Your task to perform on an android device: turn on priority inbox in the gmail app Image 0: 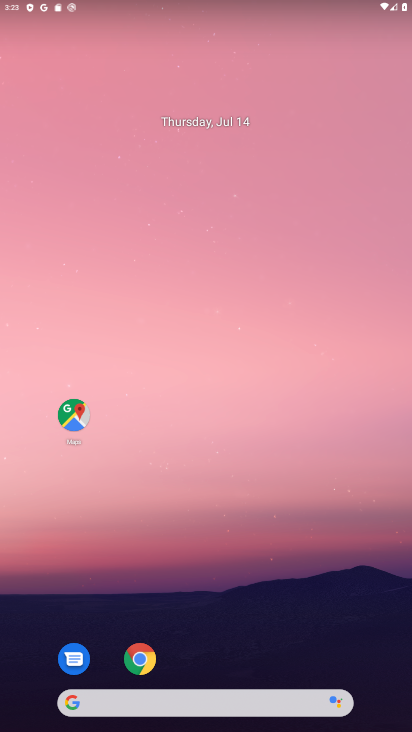
Step 0: drag from (335, 614) to (339, 124)
Your task to perform on an android device: turn on priority inbox in the gmail app Image 1: 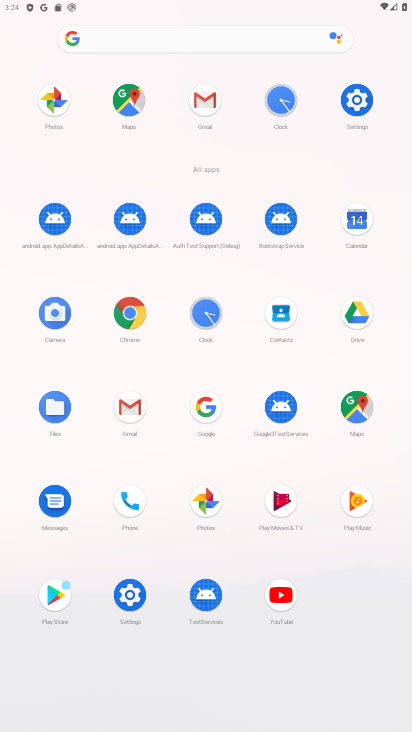
Step 1: click (139, 404)
Your task to perform on an android device: turn on priority inbox in the gmail app Image 2: 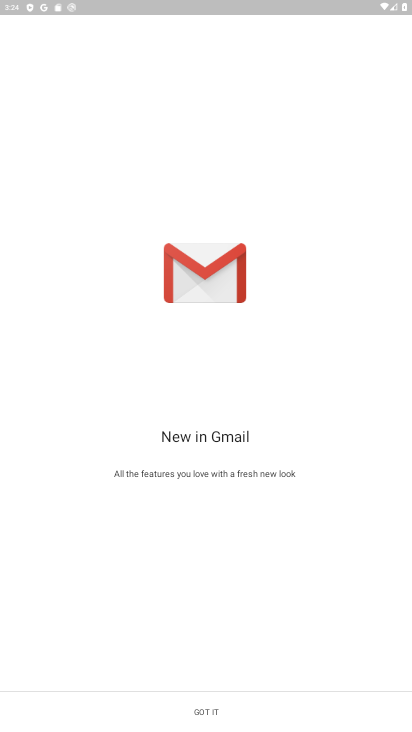
Step 2: click (207, 703)
Your task to perform on an android device: turn on priority inbox in the gmail app Image 3: 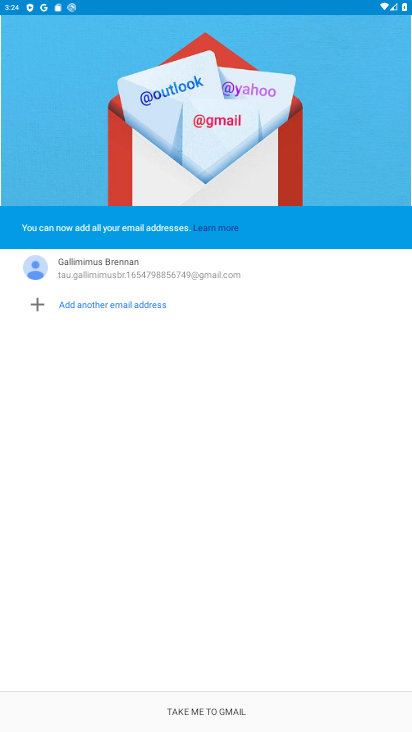
Step 3: click (211, 712)
Your task to perform on an android device: turn on priority inbox in the gmail app Image 4: 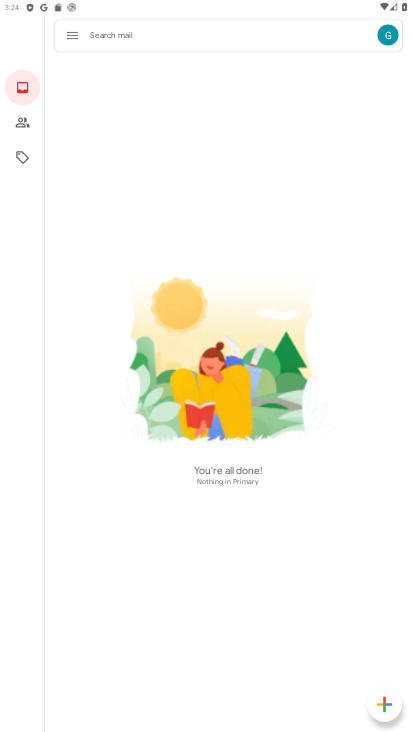
Step 4: click (76, 37)
Your task to perform on an android device: turn on priority inbox in the gmail app Image 5: 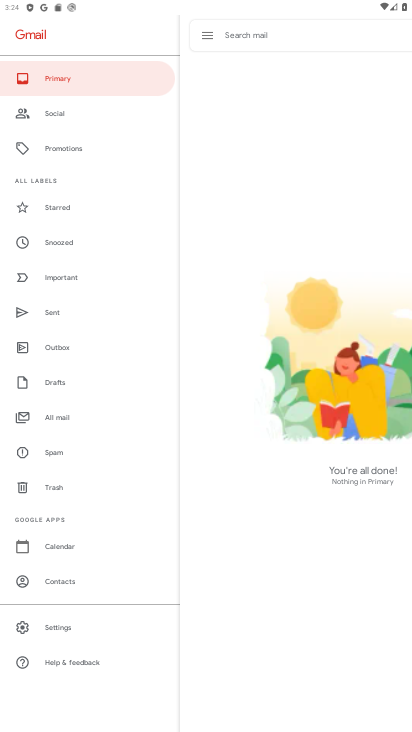
Step 5: click (102, 630)
Your task to perform on an android device: turn on priority inbox in the gmail app Image 6: 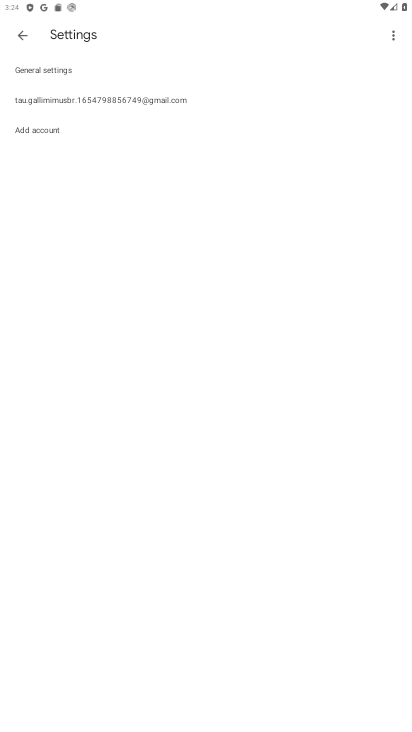
Step 6: click (146, 101)
Your task to perform on an android device: turn on priority inbox in the gmail app Image 7: 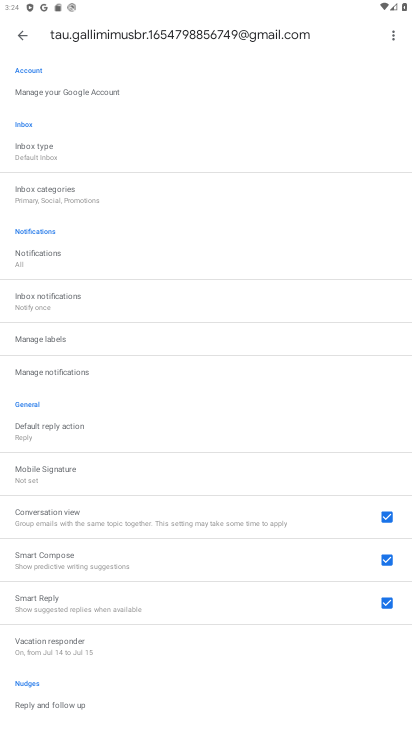
Step 7: click (89, 169)
Your task to perform on an android device: turn on priority inbox in the gmail app Image 8: 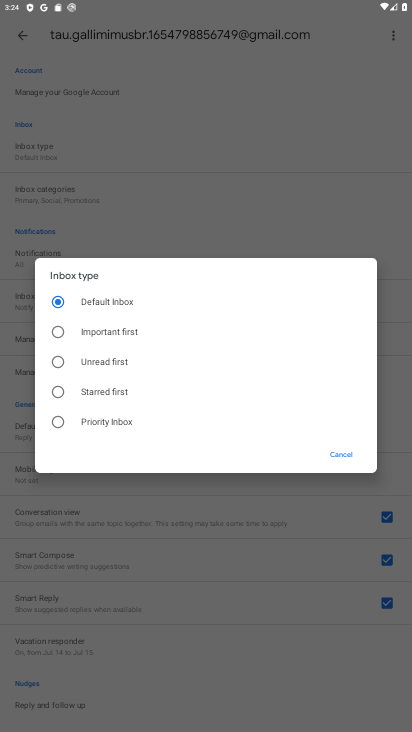
Step 8: click (123, 423)
Your task to perform on an android device: turn on priority inbox in the gmail app Image 9: 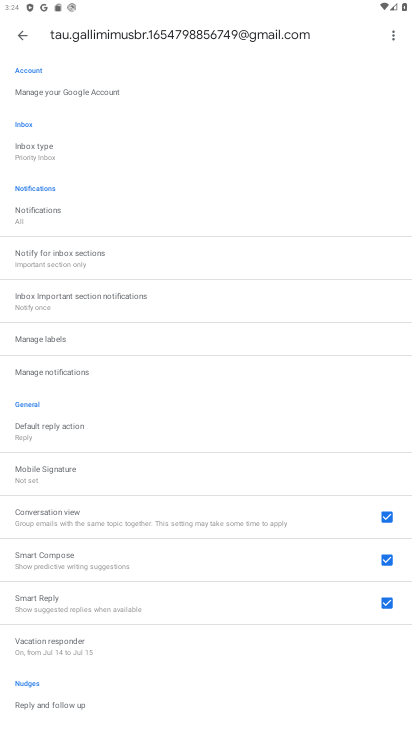
Step 9: task complete